Your task to perform on an android device: Open settings Image 0: 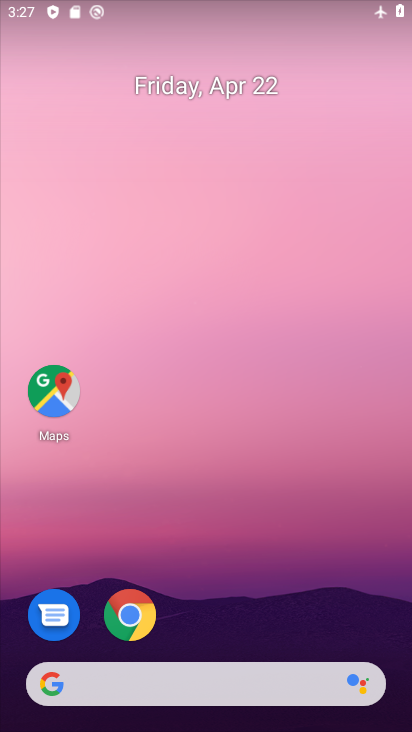
Step 0: drag from (200, 594) to (259, 183)
Your task to perform on an android device: Open settings Image 1: 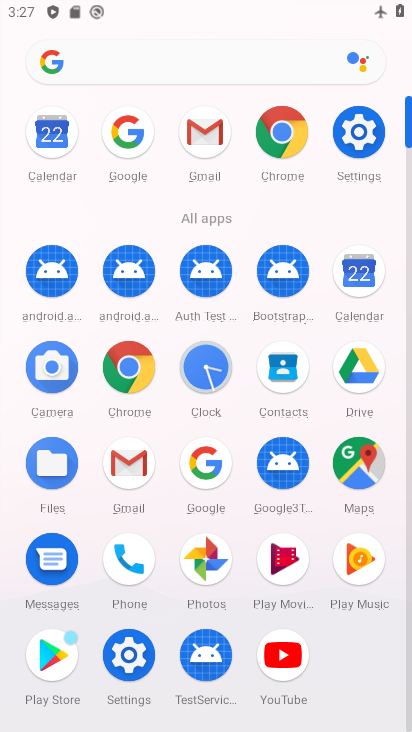
Step 1: click (364, 130)
Your task to perform on an android device: Open settings Image 2: 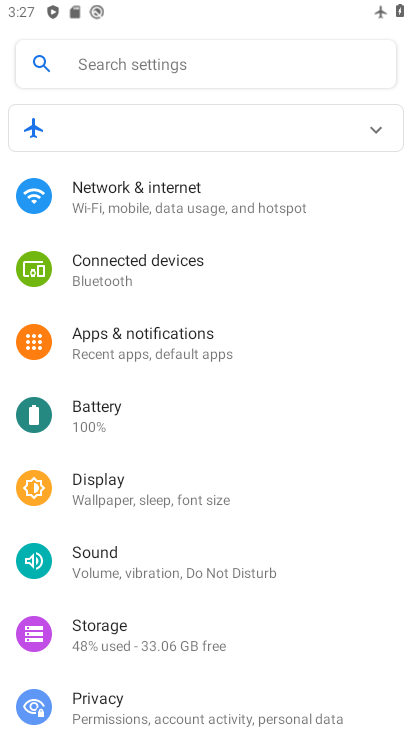
Step 2: task complete